Your task to perform on an android device: change keyboard looks Image 0: 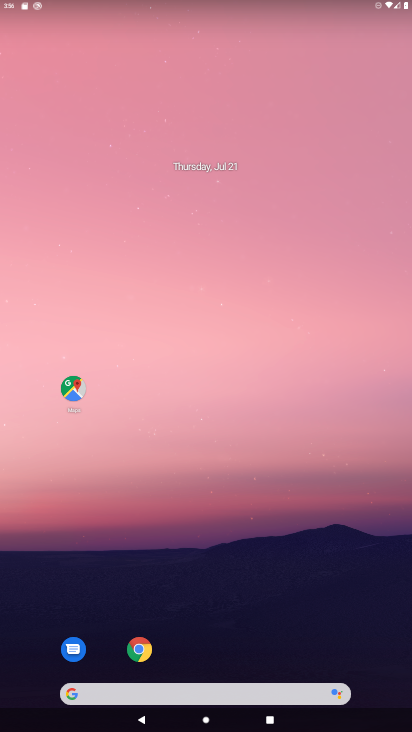
Step 0: drag from (345, 671) to (256, 205)
Your task to perform on an android device: change keyboard looks Image 1: 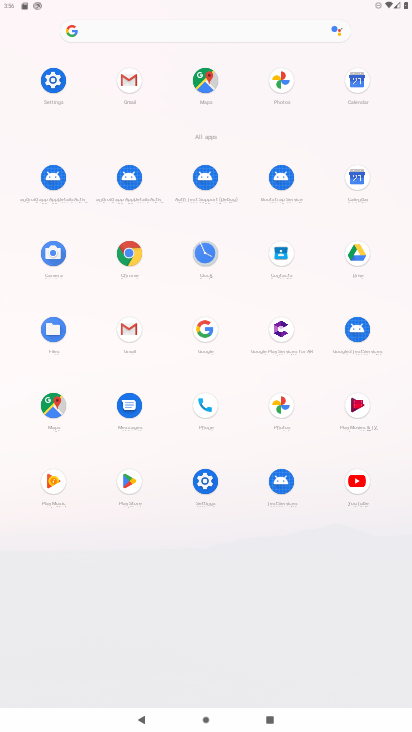
Step 1: click (206, 484)
Your task to perform on an android device: change keyboard looks Image 2: 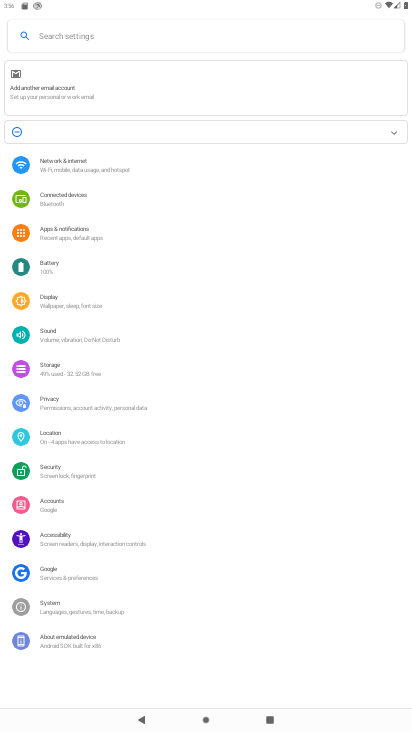
Step 2: click (48, 611)
Your task to perform on an android device: change keyboard looks Image 3: 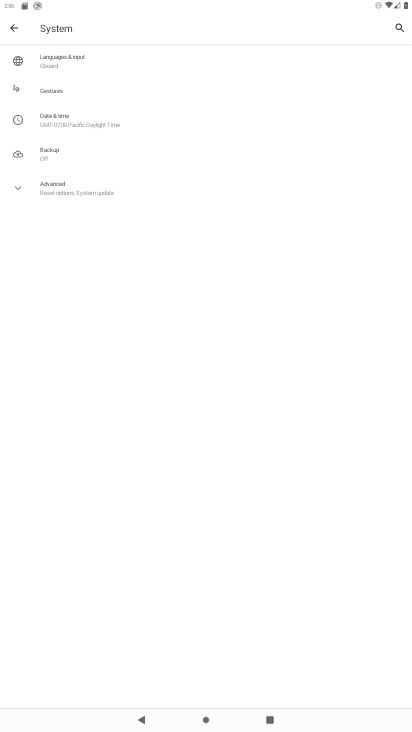
Step 3: click (82, 58)
Your task to perform on an android device: change keyboard looks Image 4: 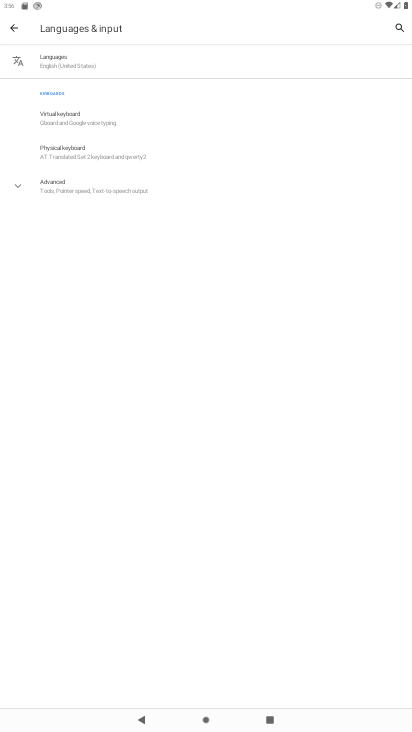
Step 4: click (57, 118)
Your task to perform on an android device: change keyboard looks Image 5: 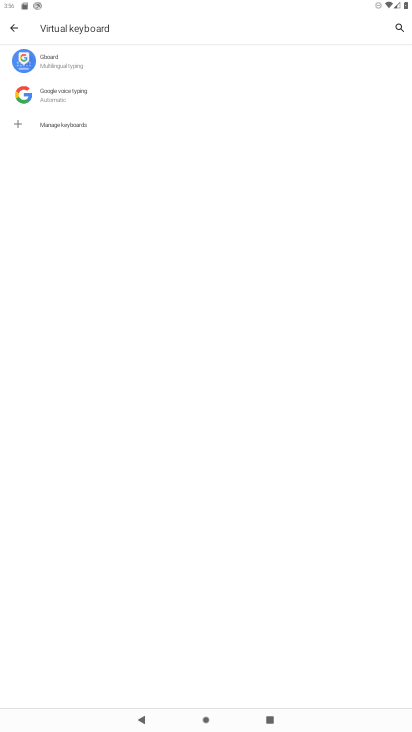
Step 5: click (66, 66)
Your task to perform on an android device: change keyboard looks Image 6: 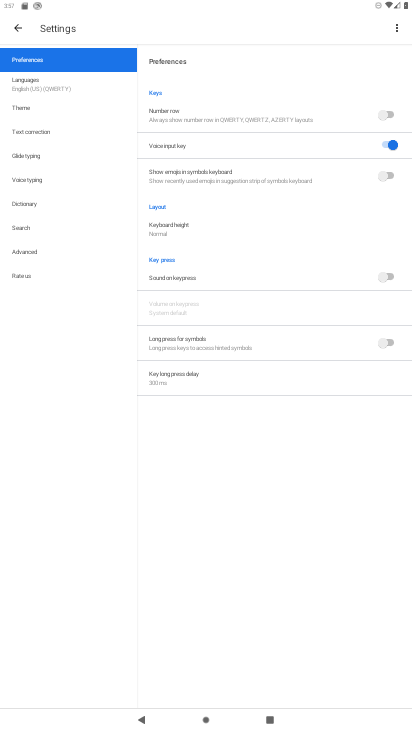
Step 6: click (34, 111)
Your task to perform on an android device: change keyboard looks Image 7: 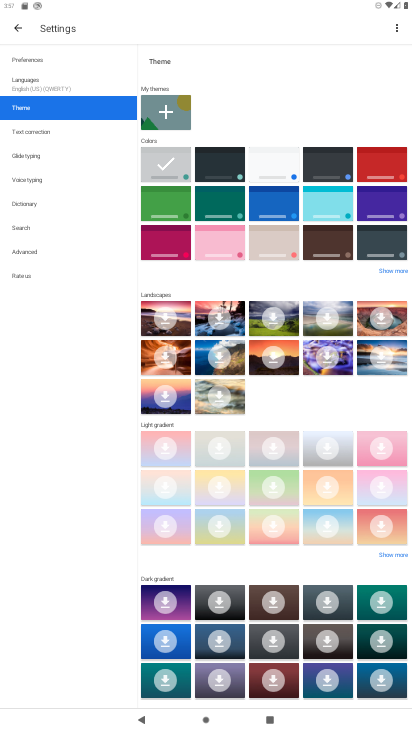
Step 7: click (225, 405)
Your task to perform on an android device: change keyboard looks Image 8: 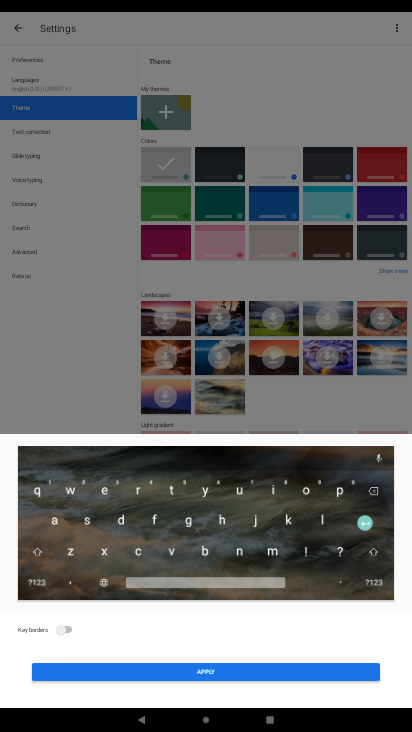
Step 8: click (221, 677)
Your task to perform on an android device: change keyboard looks Image 9: 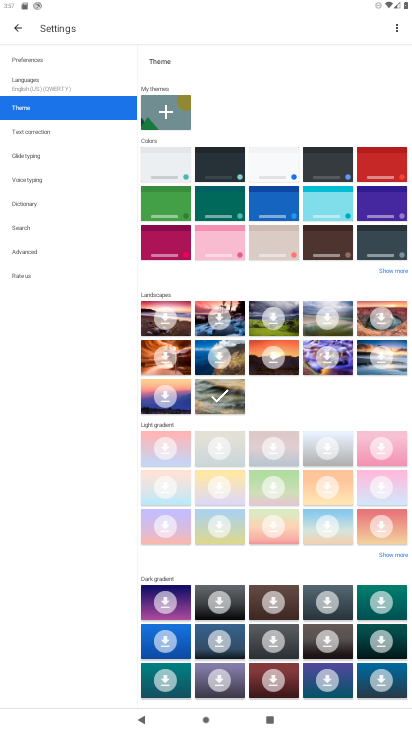
Step 9: task complete